Your task to perform on an android device: toggle notifications settings in the gmail app Image 0: 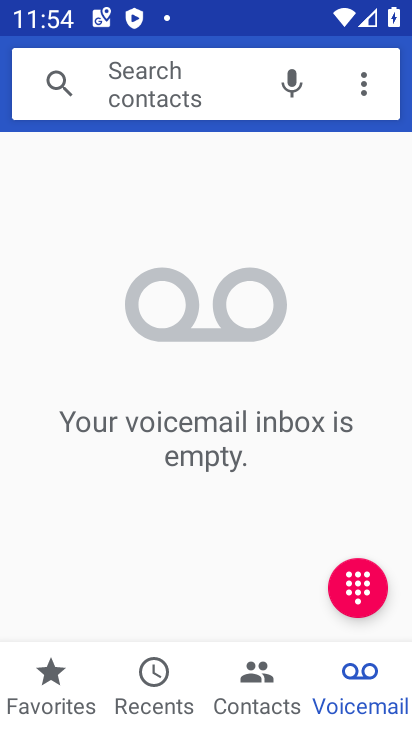
Step 0: press home button
Your task to perform on an android device: toggle notifications settings in the gmail app Image 1: 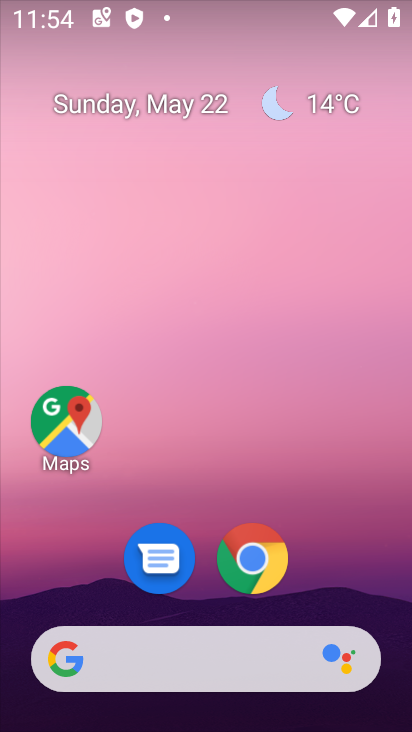
Step 1: drag from (326, 560) to (351, 5)
Your task to perform on an android device: toggle notifications settings in the gmail app Image 2: 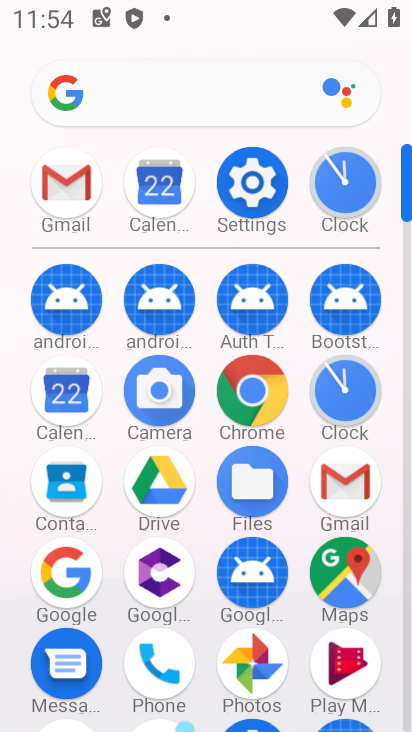
Step 2: click (66, 182)
Your task to perform on an android device: toggle notifications settings in the gmail app Image 3: 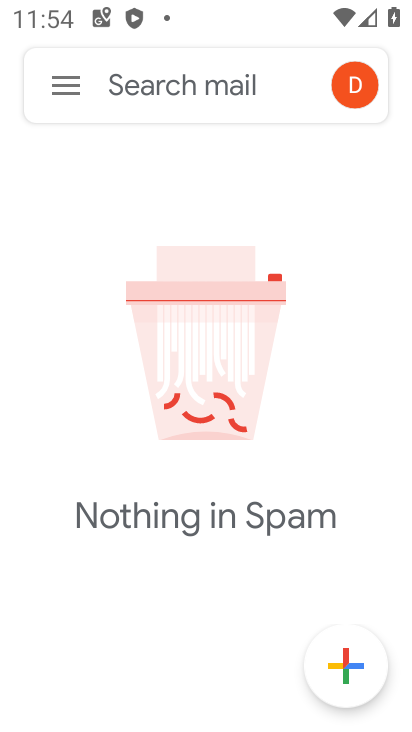
Step 3: click (60, 90)
Your task to perform on an android device: toggle notifications settings in the gmail app Image 4: 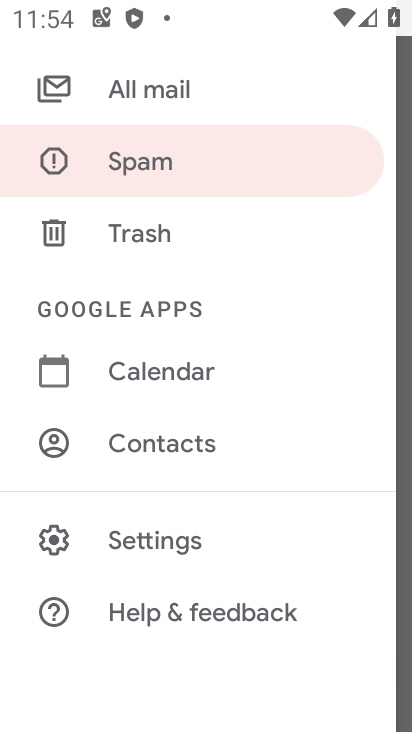
Step 4: click (151, 536)
Your task to perform on an android device: toggle notifications settings in the gmail app Image 5: 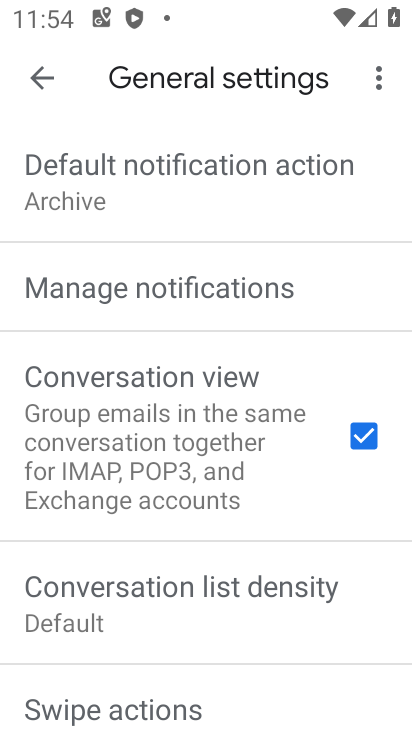
Step 5: click (142, 302)
Your task to perform on an android device: toggle notifications settings in the gmail app Image 6: 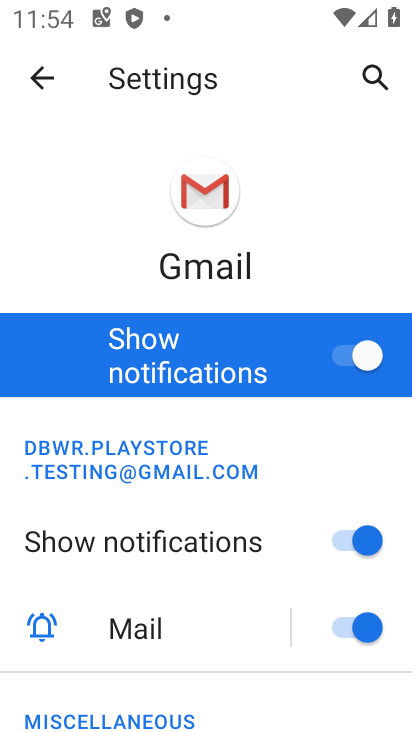
Step 6: click (362, 363)
Your task to perform on an android device: toggle notifications settings in the gmail app Image 7: 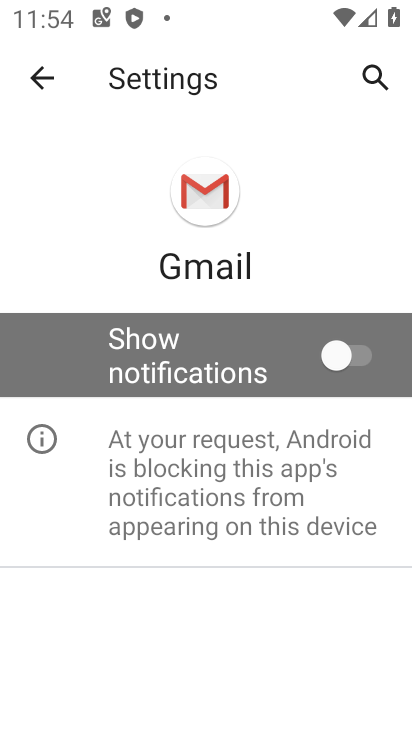
Step 7: task complete